Your task to perform on an android device: toggle javascript in the chrome app Image 0: 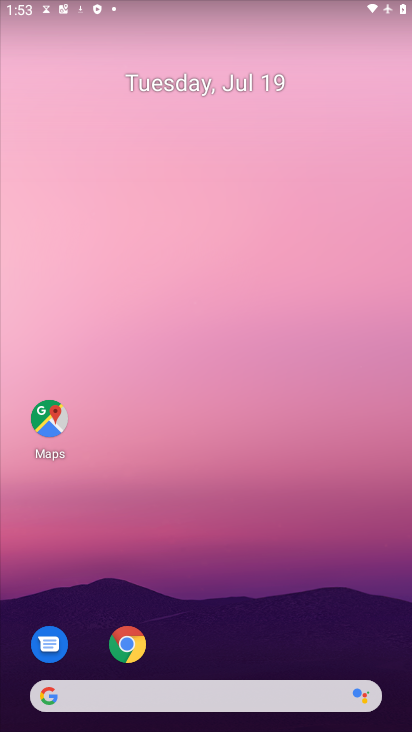
Step 0: drag from (113, 540) to (99, 98)
Your task to perform on an android device: toggle javascript in the chrome app Image 1: 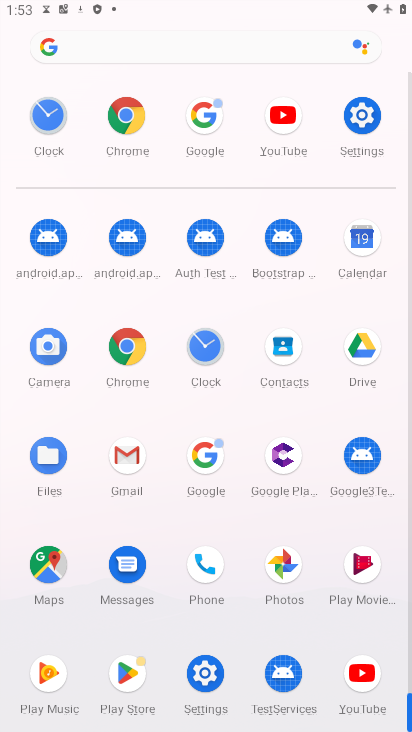
Step 1: click (372, 109)
Your task to perform on an android device: toggle javascript in the chrome app Image 2: 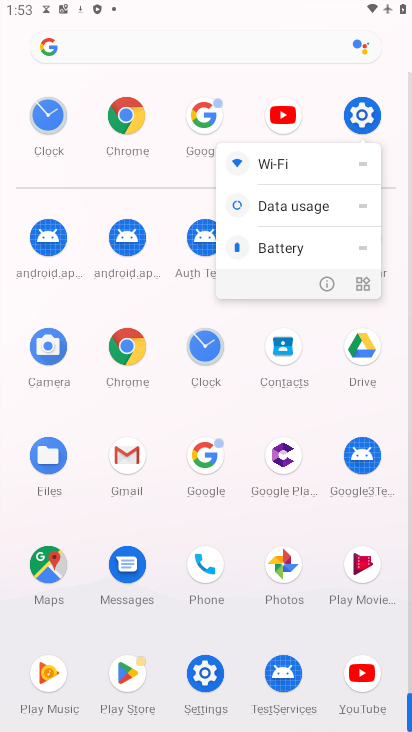
Step 2: click (269, 207)
Your task to perform on an android device: toggle javascript in the chrome app Image 3: 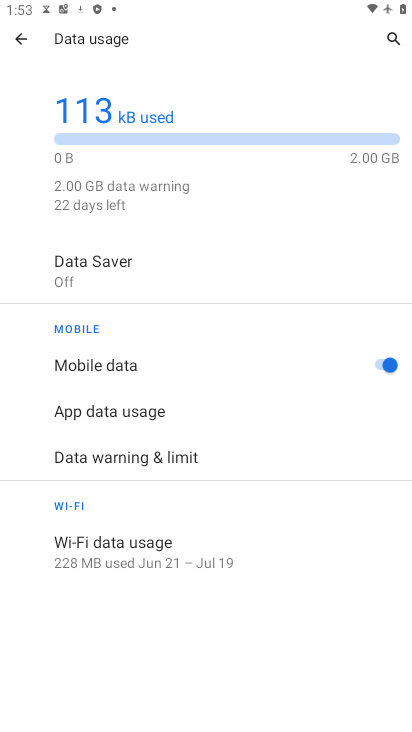
Step 3: click (25, 30)
Your task to perform on an android device: toggle javascript in the chrome app Image 4: 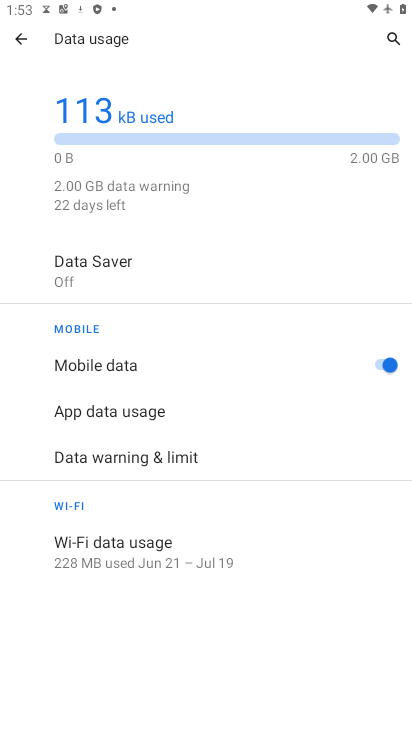
Step 4: click (21, 28)
Your task to perform on an android device: toggle javascript in the chrome app Image 5: 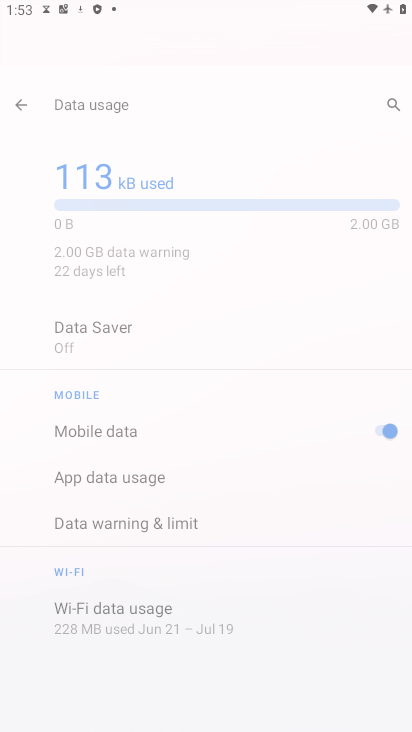
Step 5: click (20, 27)
Your task to perform on an android device: toggle javascript in the chrome app Image 6: 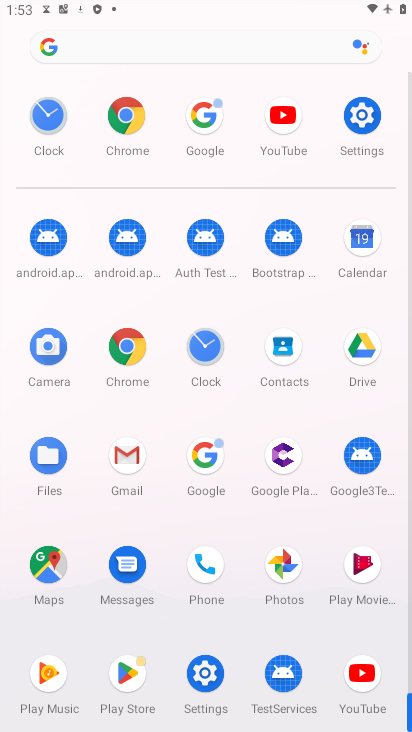
Step 6: click (365, 115)
Your task to perform on an android device: toggle javascript in the chrome app Image 7: 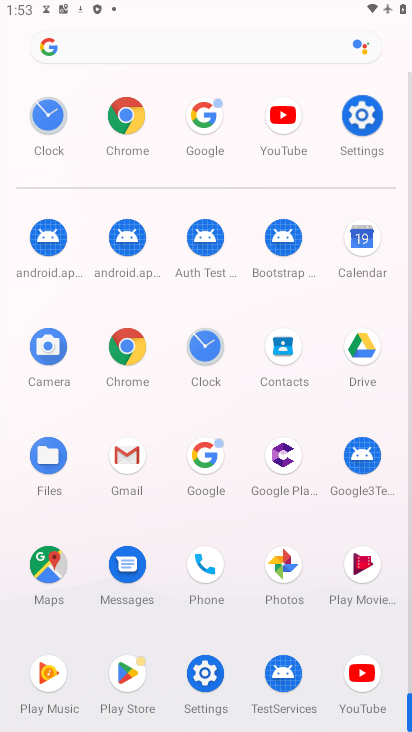
Step 7: click (368, 113)
Your task to perform on an android device: toggle javascript in the chrome app Image 8: 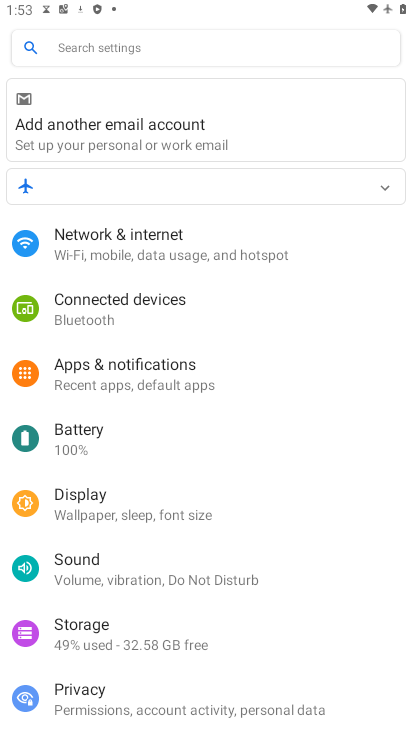
Step 8: drag from (132, 623) to (198, 275)
Your task to perform on an android device: toggle javascript in the chrome app Image 9: 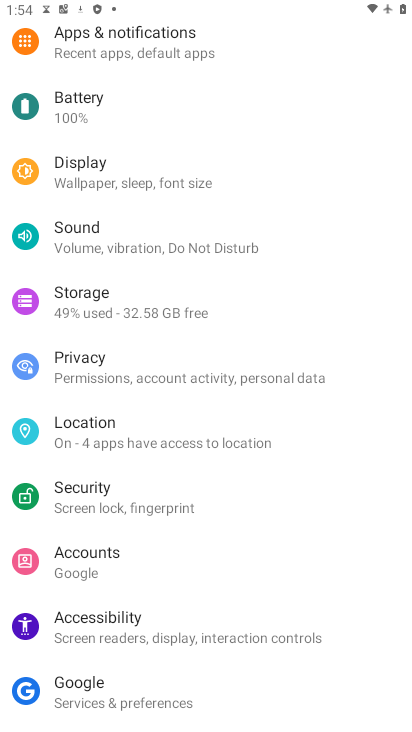
Step 9: drag from (119, 449) to (60, 180)
Your task to perform on an android device: toggle javascript in the chrome app Image 10: 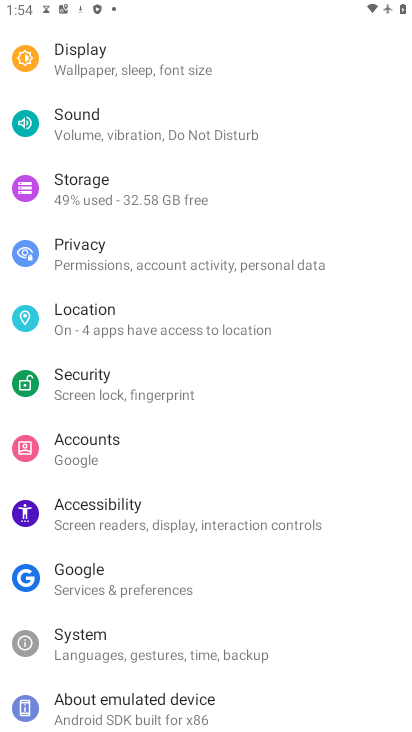
Step 10: drag from (136, 499) to (126, 173)
Your task to perform on an android device: toggle javascript in the chrome app Image 11: 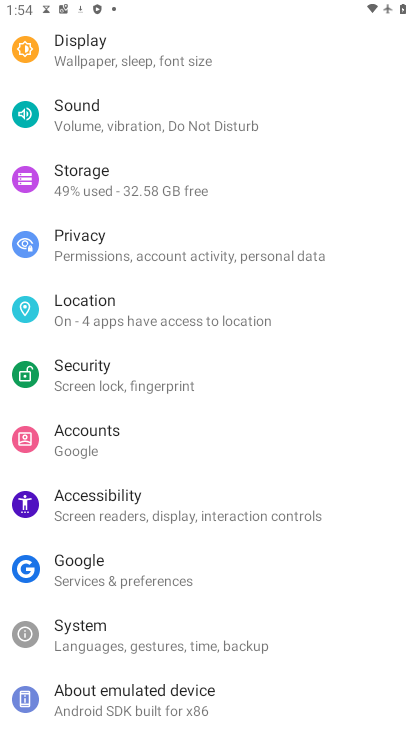
Step 11: press back button
Your task to perform on an android device: toggle javascript in the chrome app Image 12: 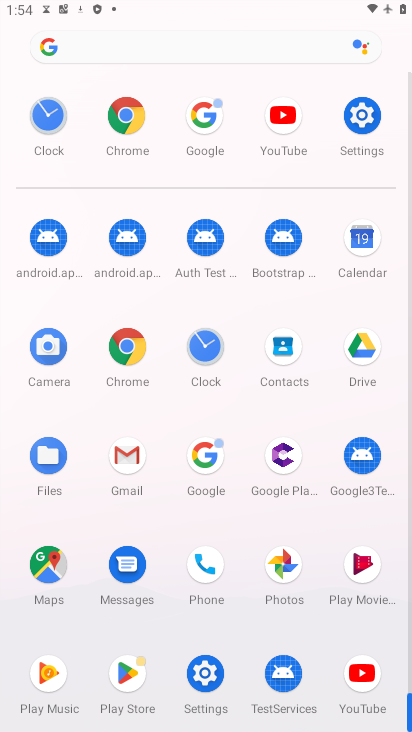
Step 12: click (120, 121)
Your task to perform on an android device: toggle javascript in the chrome app Image 13: 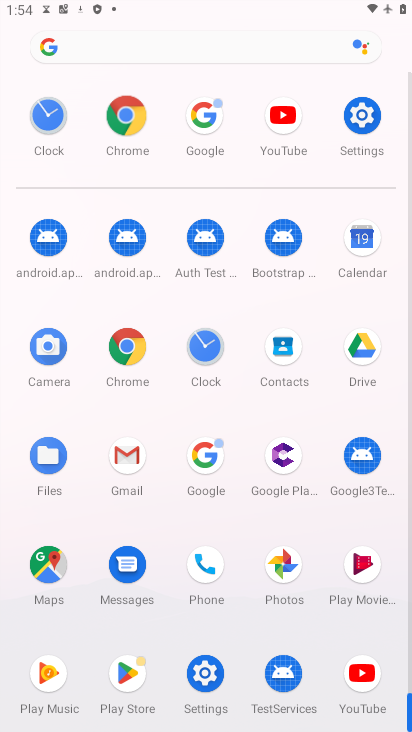
Step 13: click (120, 121)
Your task to perform on an android device: toggle javascript in the chrome app Image 14: 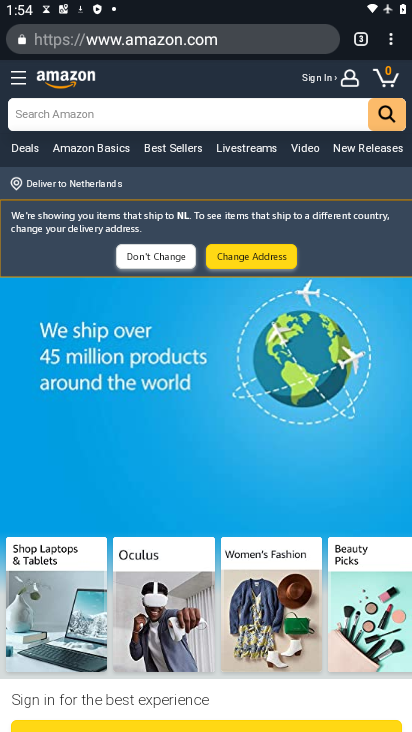
Step 14: drag from (394, 38) to (258, 468)
Your task to perform on an android device: toggle javascript in the chrome app Image 15: 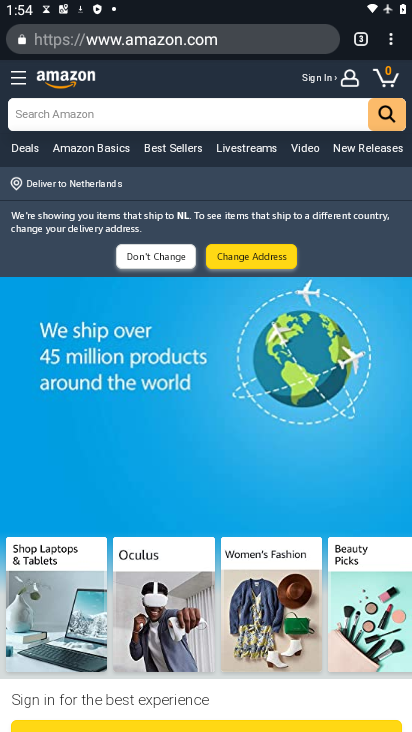
Step 15: click (259, 469)
Your task to perform on an android device: toggle javascript in the chrome app Image 16: 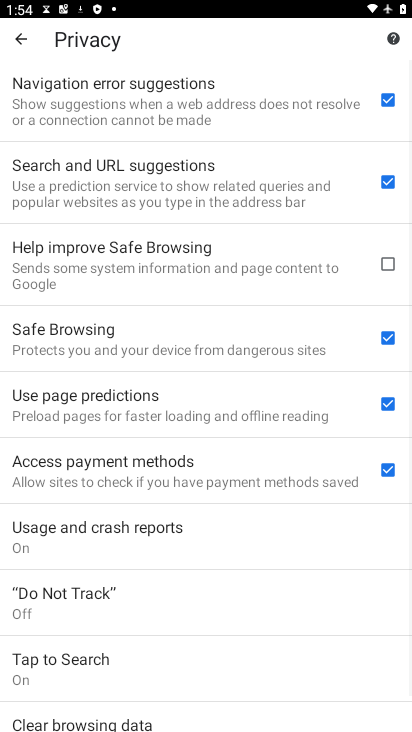
Step 16: click (21, 37)
Your task to perform on an android device: toggle javascript in the chrome app Image 17: 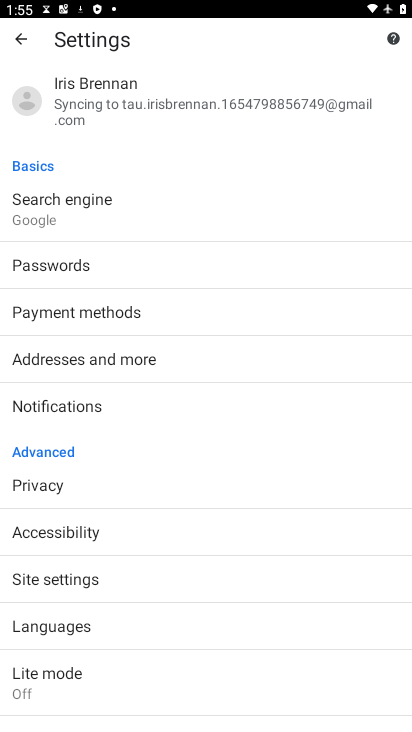
Step 17: drag from (48, 582) to (94, 358)
Your task to perform on an android device: toggle javascript in the chrome app Image 18: 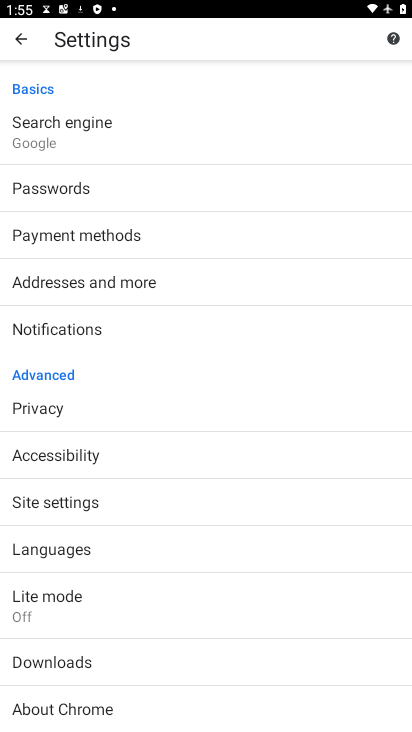
Step 18: click (77, 485)
Your task to perform on an android device: toggle javascript in the chrome app Image 19: 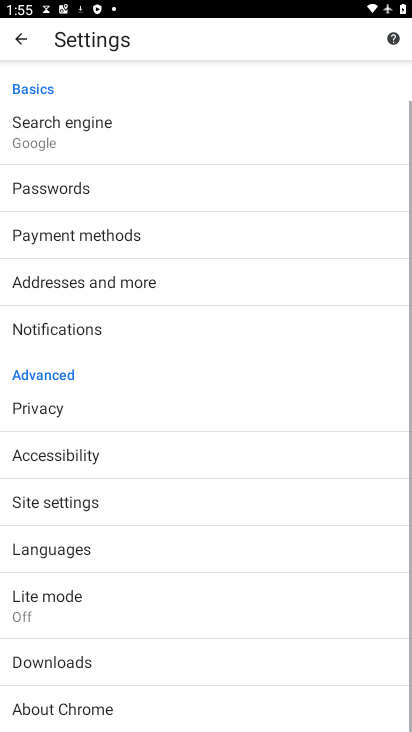
Step 19: click (77, 485)
Your task to perform on an android device: toggle javascript in the chrome app Image 20: 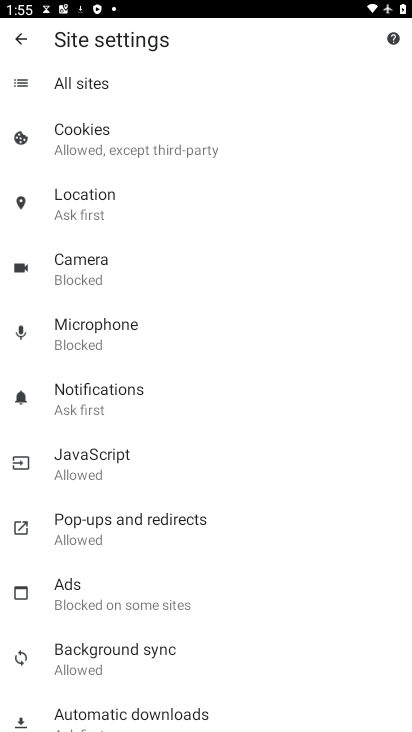
Step 20: click (91, 454)
Your task to perform on an android device: toggle javascript in the chrome app Image 21: 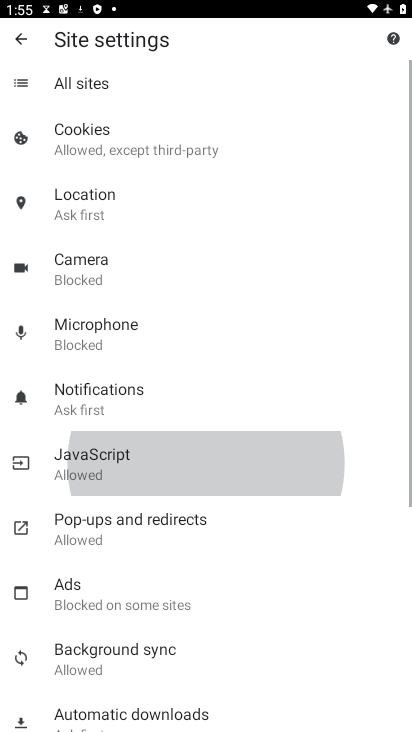
Step 21: click (92, 454)
Your task to perform on an android device: toggle javascript in the chrome app Image 22: 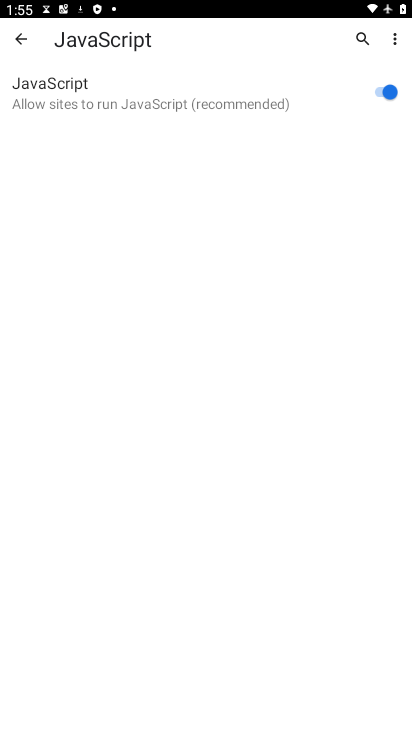
Step 22: click (390, 82)
Your task to perform on an android device: toggle javascript in the chrome app Image 23: 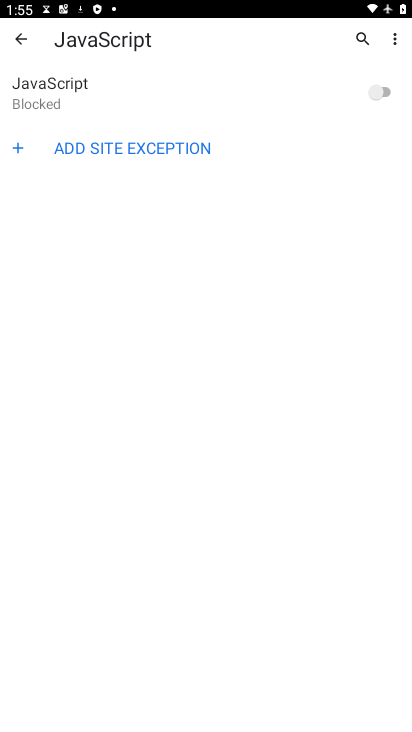
Step 23: task complete